Your task to perform on an android device: turn off wifi Image 0: 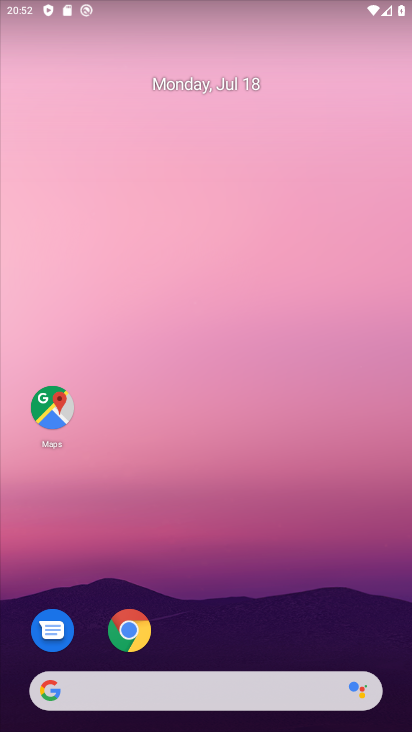
Step 0: drag from (247, 592) to (247, 158)
Your task to perform on an android device: turn off wifi Image 1: 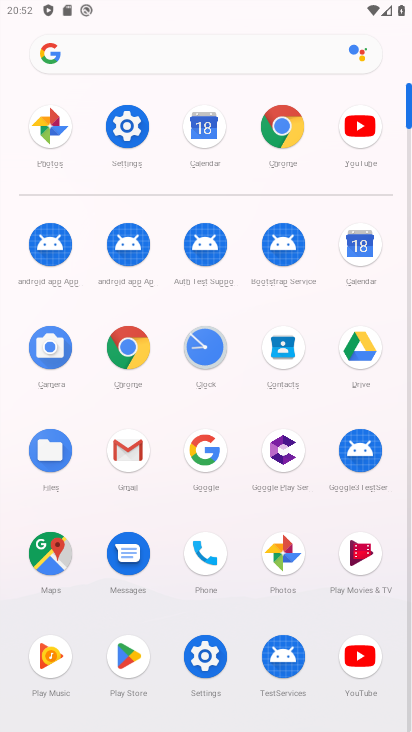
Step 1: click (116, 134)
Your task to perform on an android device: turn off wifi Image 2: 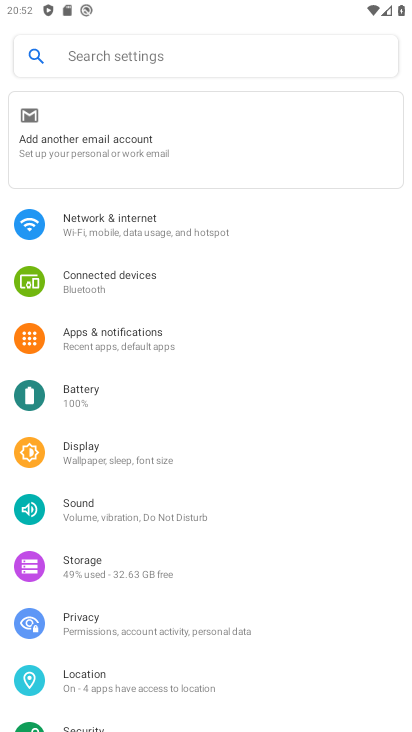
Step 2: click (140, 227)
Your task to perform on an android device: turn off wifi Image 3: 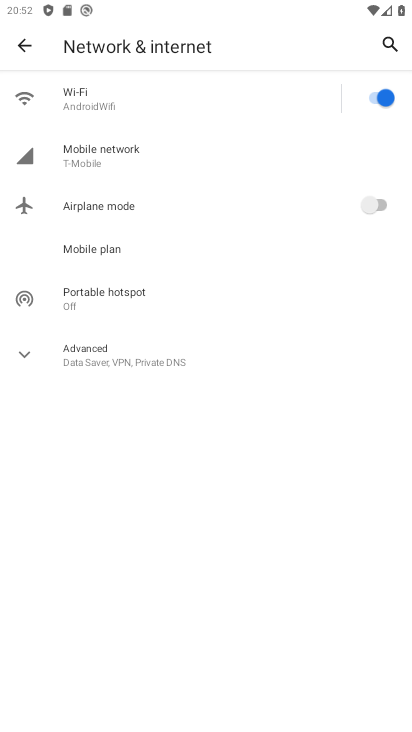
Step 3: click (386, 99)
Your task to perform on an android device: turn off wifi Image 4: 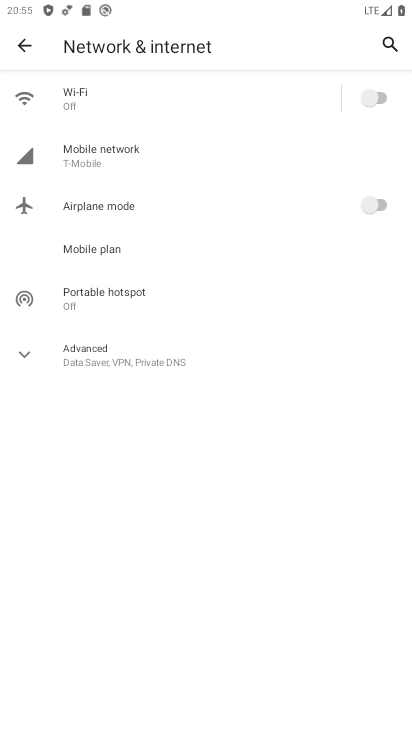
Step 4: task complete